Your task to perform on an android device: move a message to another label in the gmail app Image 0: 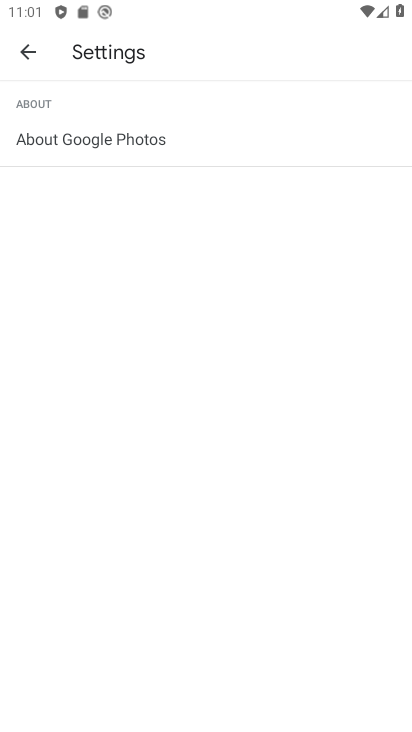
Step 0: press home button
Your task to perform on an android device: move a message to another label in the gmail app Image 1: 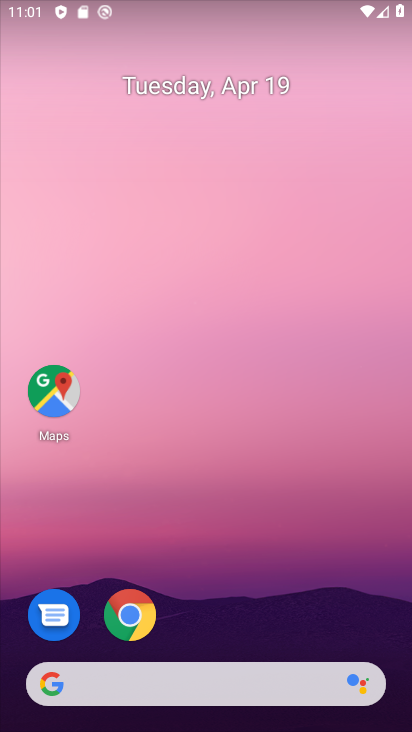
Step 1: drag from (230, 205) to (230, 133)
Your task to perform on an android device: move a message to another label in the gmail app Image 2: 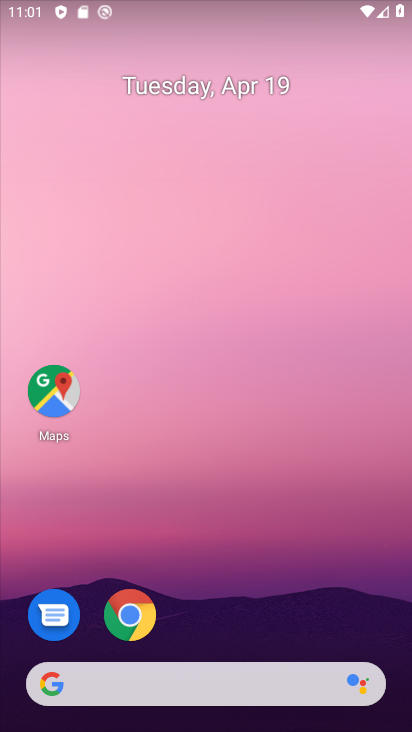
Step 2: drag from (229, 591) to (267, 84)
Your task to perform on an android device: move a message to another label in the gmail app Image 3: 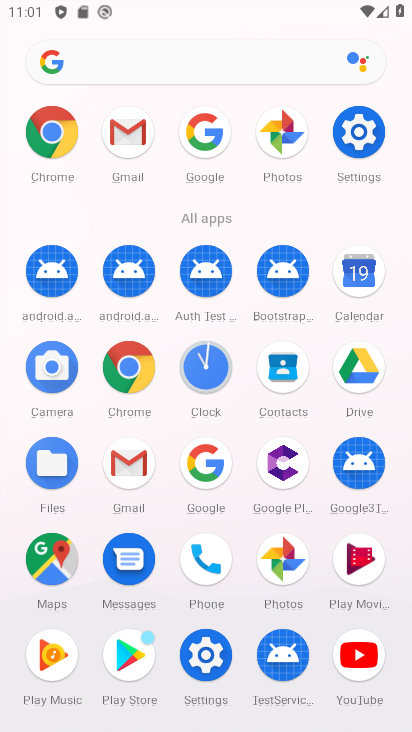
Step 3: click (108, 140)
Your task to perform on an android device: move a message to another label in the gmail app Image 4: 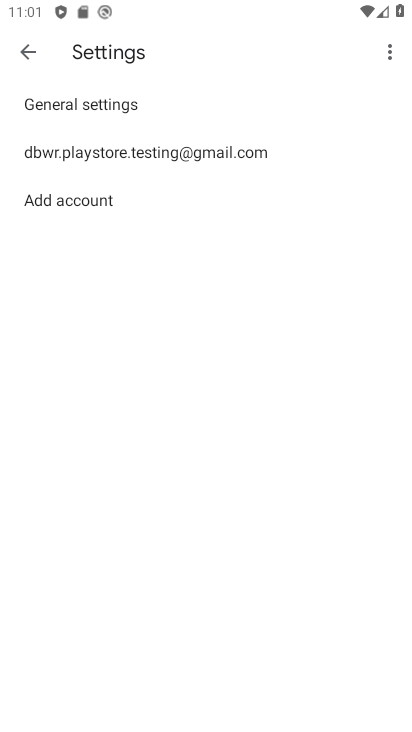
Step 4: click (15, 46)
Your task to perform on an android device: move a message to another label in the gmail app Image 5: 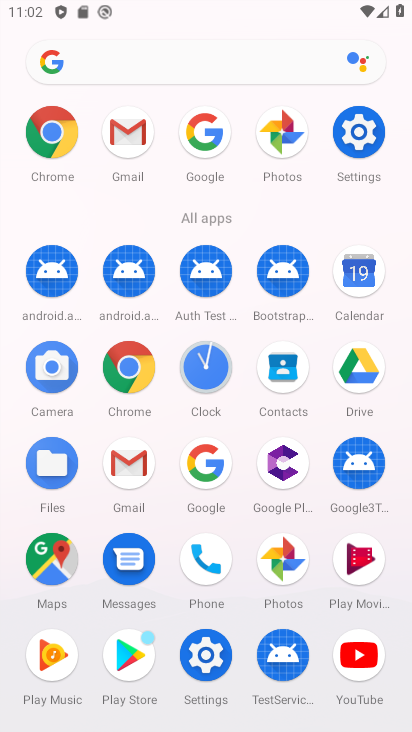
Step 5: click (125, 149)
Your task to perform on an android device: move a message to another label in the gmail app Image 6: 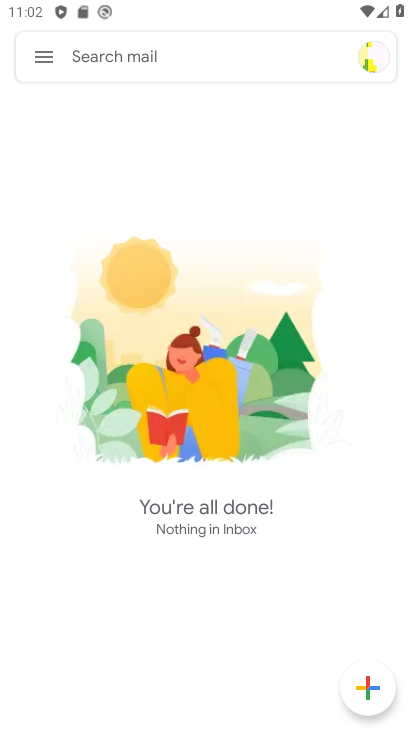
Step 6: click (38, 47)
Your task to perform on an android device: move a message to another label in the gmail app Image 7: 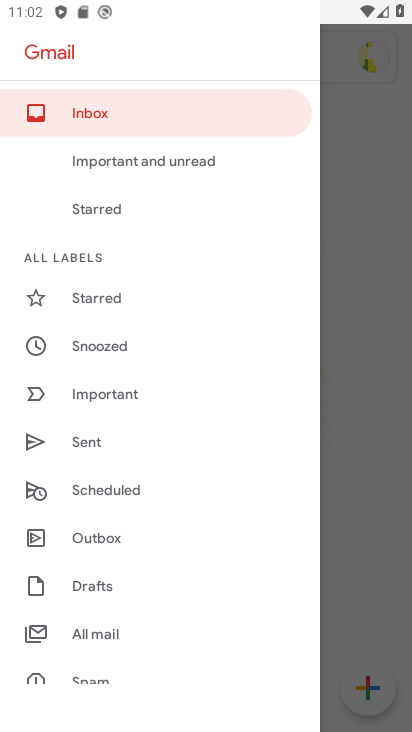
Step 7: click (124, 635)
Your task to perform on an android device: move a message to another label in the gmail app Image 8: 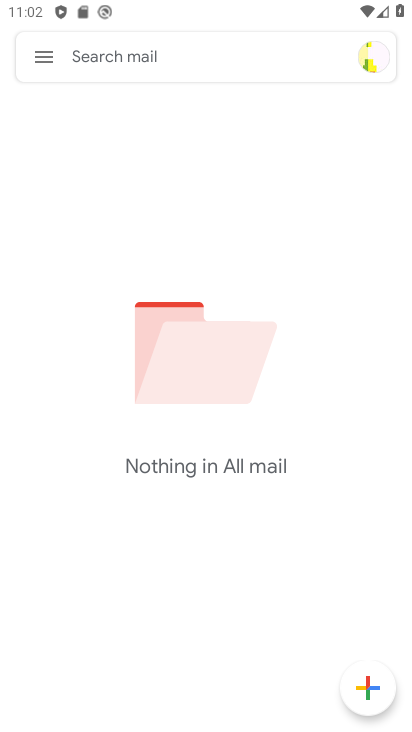
Step 8: task complete